Your task to perform on an android device: check the backup settings in the google photos Image 0: 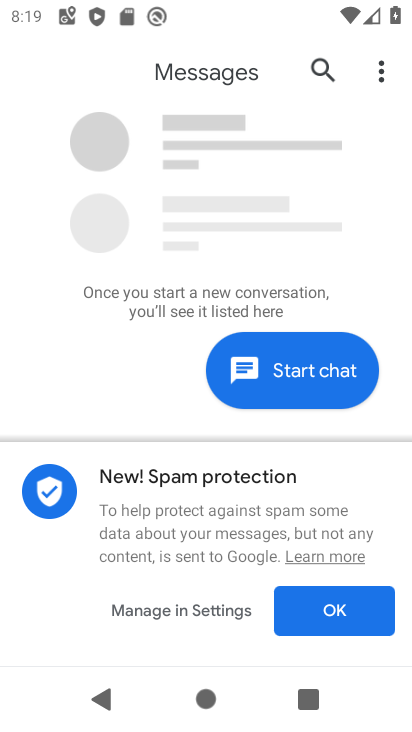
Step 0: press home button
Your task to perform on an android device: check the backup settings in the google photos Image 1: 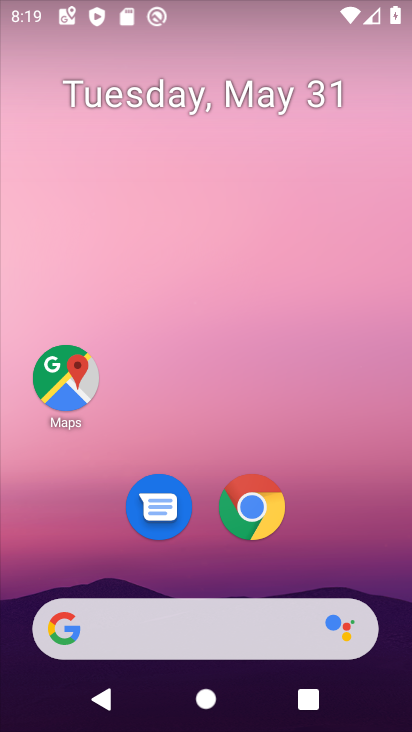
Step 1: drag from (344, 546) to (343, 176)
Your task to perform on an android device: check the backup settings in the google photos Image 2: 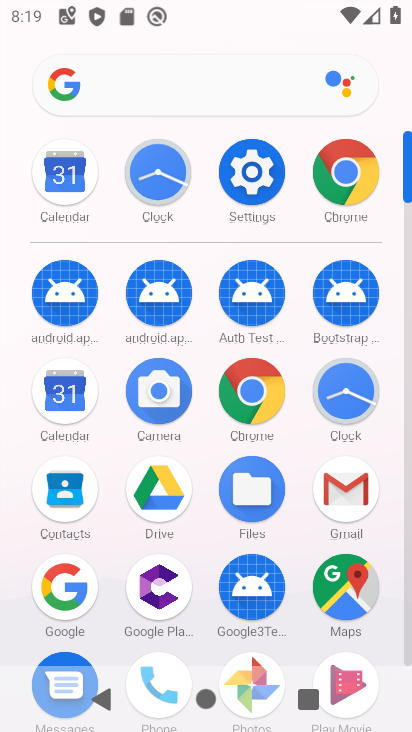
Step 2: drag from (318, 467) to (320, 232)
Your task to perform on an android device: check the backup settings in the google photos Image 3: 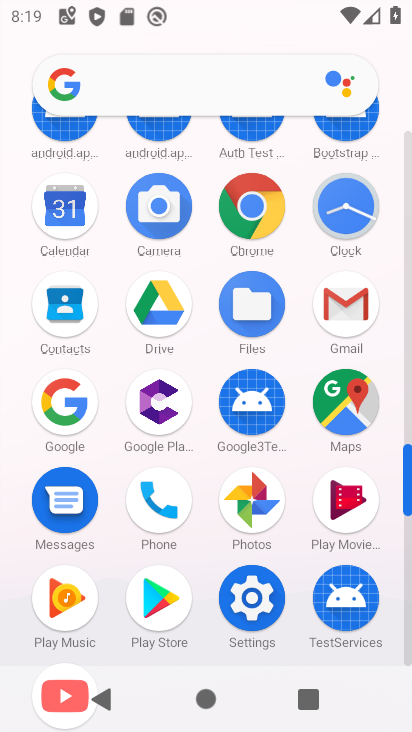
Step 3: click (259, 512)
Your task to perform on an android device: check the backup settings in the google photos Image 4: 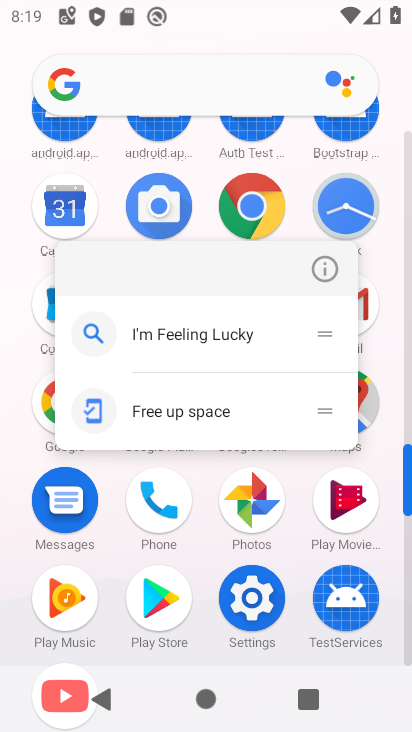
Step 4: click (248, 504)
Your task to perform on an android device: check the backup settings in the google photos Image 5: 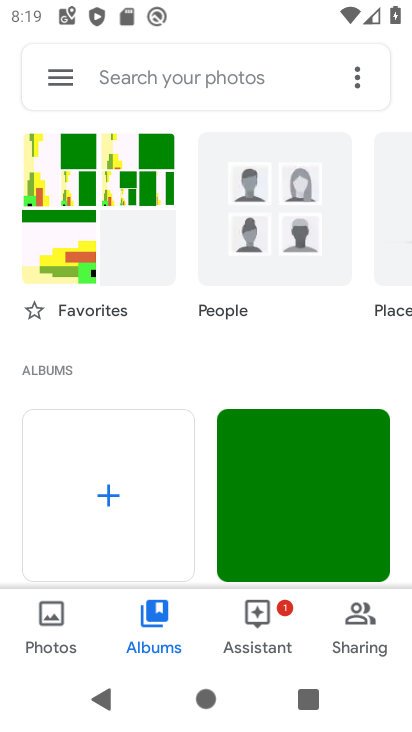
Step 5: click (80, 70)
Your task to perform on an android device: check the backup settings in the google photos Image 6: 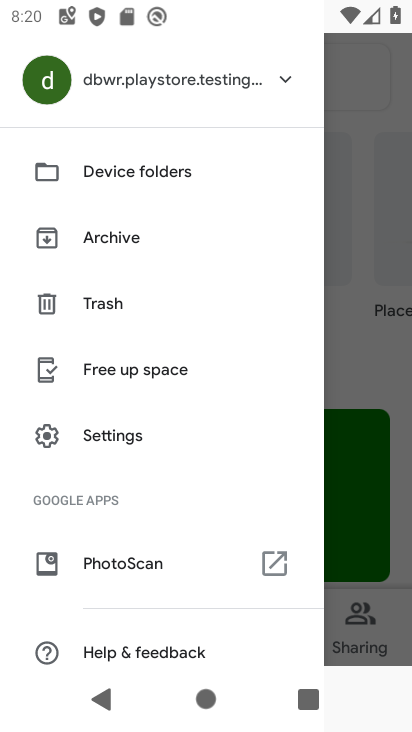
Step 6: click (115, 420)
Your task to perform on an android device: check the backup settings in the google photos Image 7: 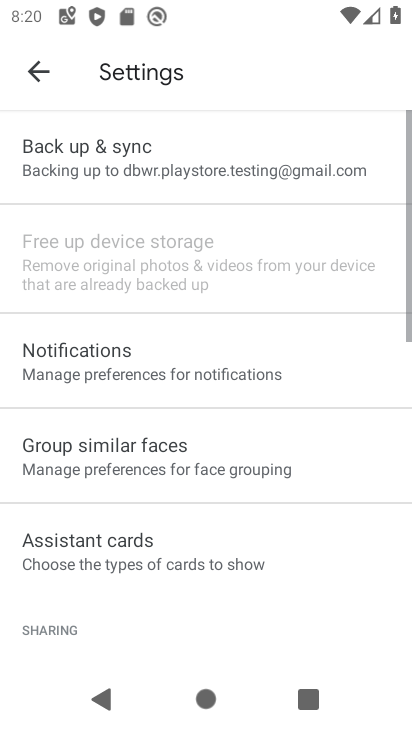
Step 7: click (182, 155)
Your task to perform on an android device: check the backup settings in the google photos Image 8: 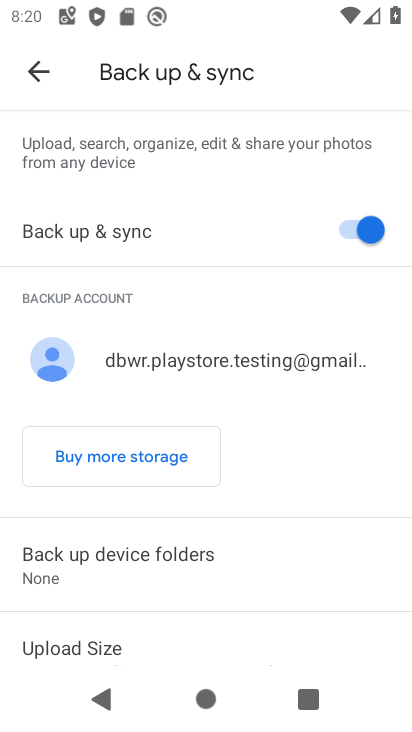
Step 8: task complete